Your task to perform on an android device: toggle wifi Image 0: 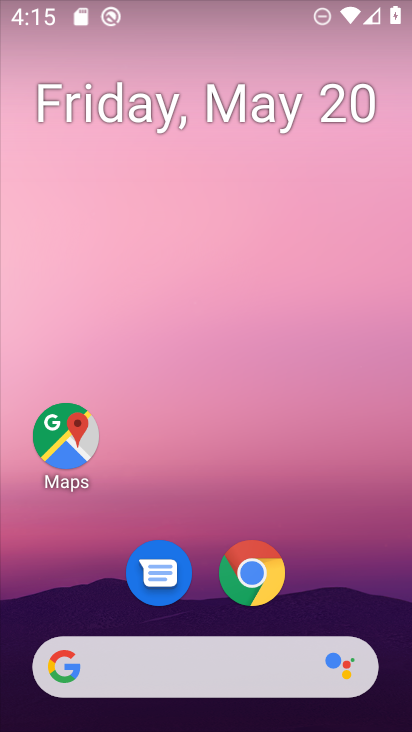
Step 0: drag from (339, 567) to (278, 200)
Your task to perform on an android device: toggle wifi Image 1: 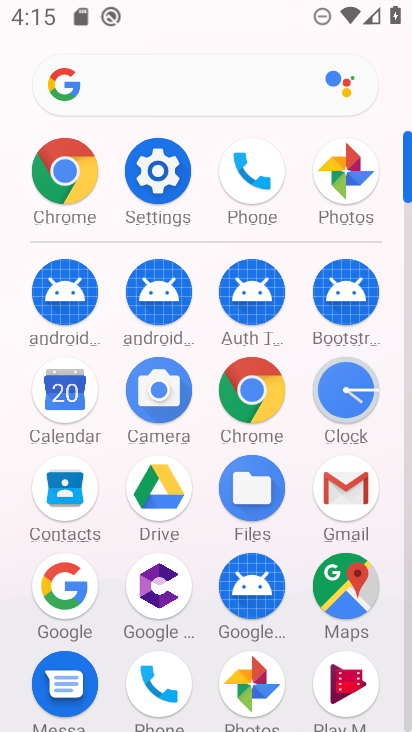
Step 1: click (169, 188)
Your task to perform on an android device: toggle wifi Image 2: 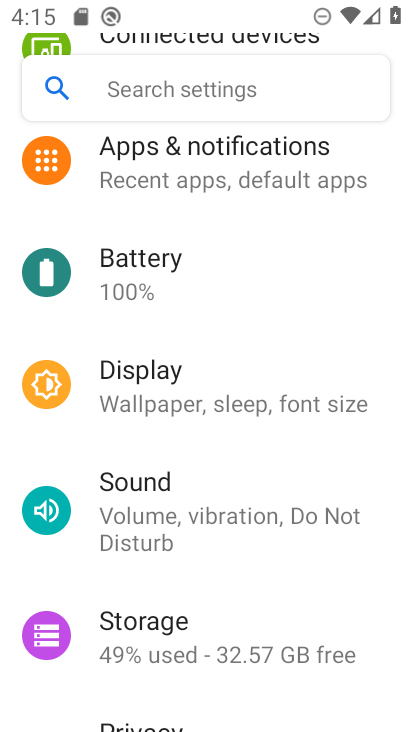
Step 2: drag from (239, 164) to (222, 708)
Your task to perform on an android device: toggle wifi Image 3: 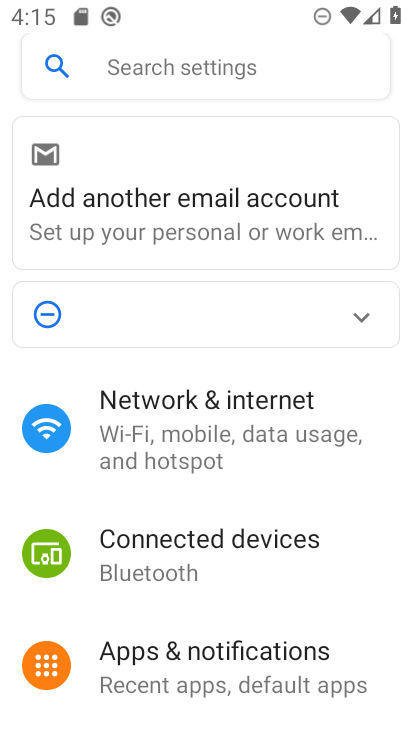
Step 3: click (251, 409)
Your task to perform on an android device: toggle wifi Image 4: 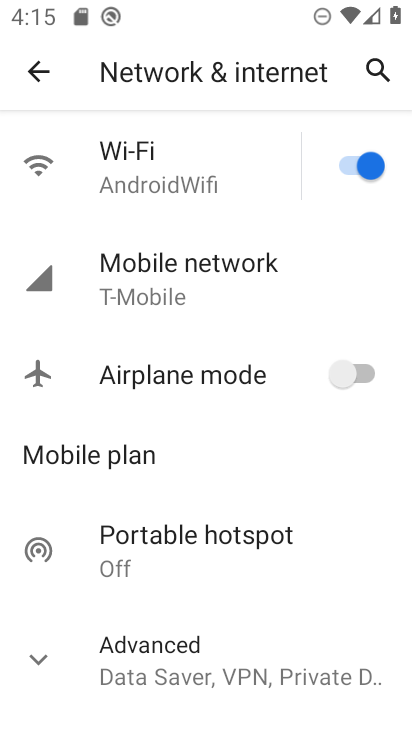
Step 4: click (356, 166)
Your task to perform on an android device: toggle wifi Image 5: 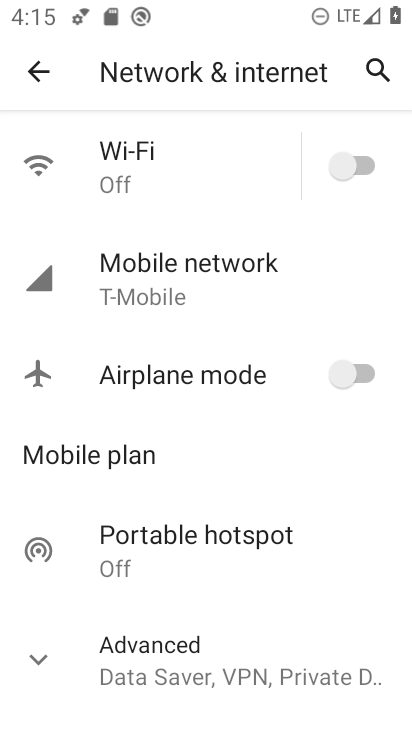
Step 5: task complete